Your task to perform on an android device: turn off priority inbox in the gmail app Image 0: 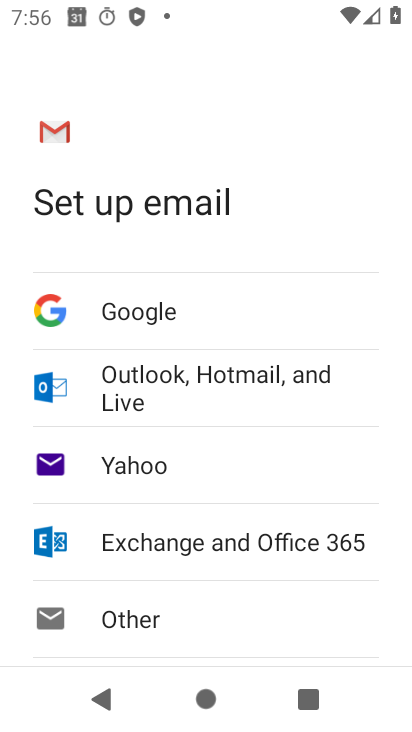
Step 0: press home button
Your task to perform on an android device: turn off priority inbox in the gmail app Image 1: 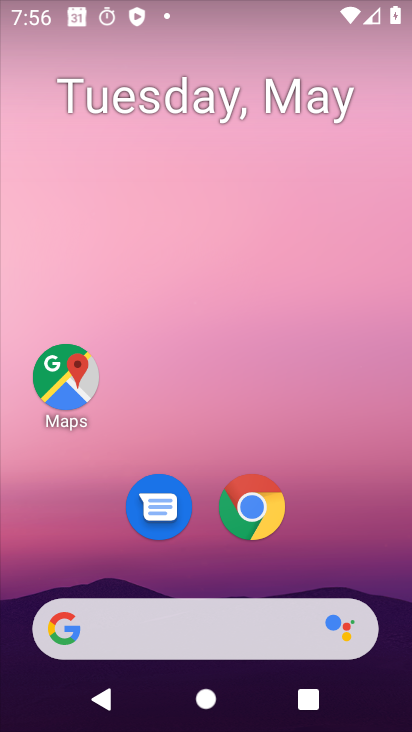
Step 1: drag from (217, 558) to (192, 8)
Your task to perform on an android device: turn off priority inbox in the gmail app Image 2: 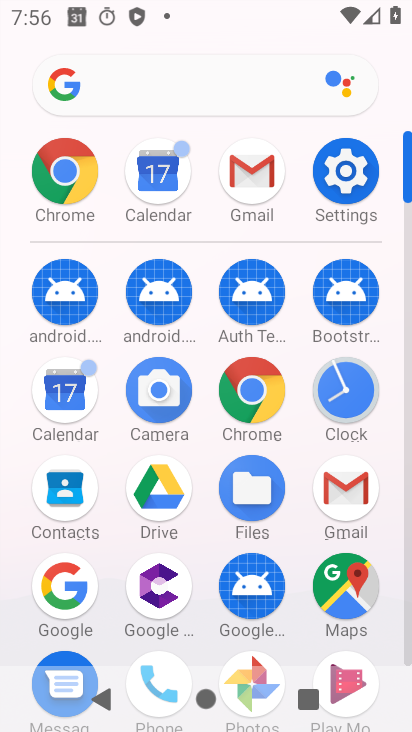
Step 2: click (237, 173)
Your task to perform on an android device: turn off priority inbox in the gmail app Image 3: 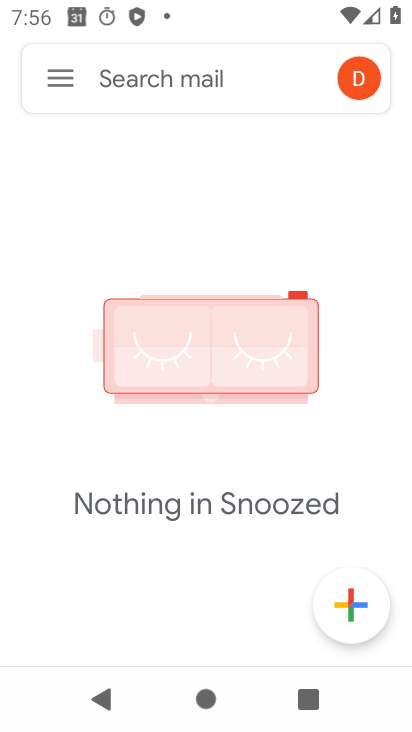
Step 3: click (48, 85)
Your task to perform on an android device: turn off priority inbox in the gmail app Image 4: 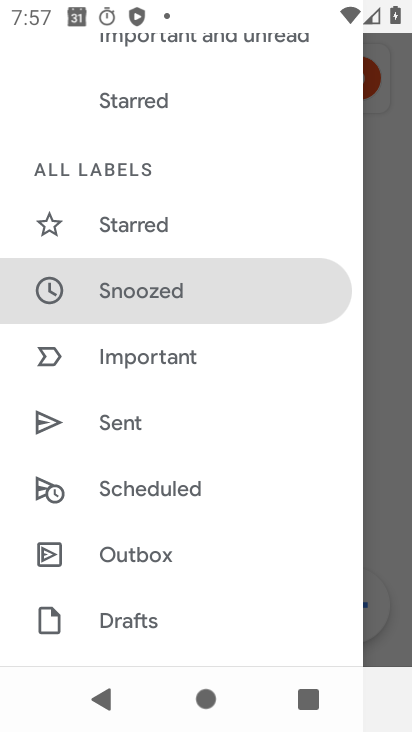
Step 4: drag from (174, 568) to (220, 311)
Your task to perform on an android device: turn off priority inbox in the gmail app Image 5: 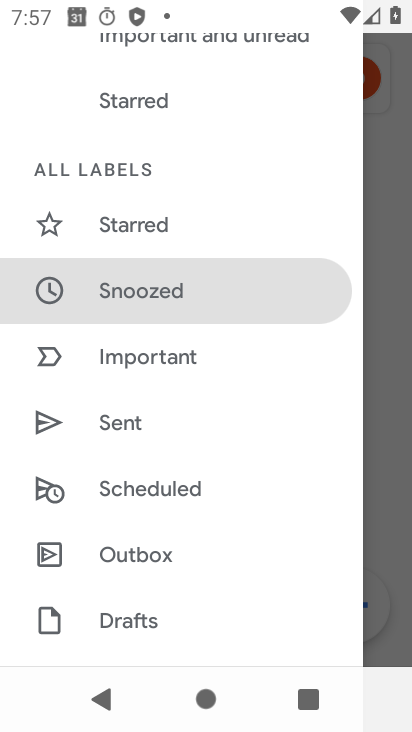
Step 5: drag from (156, 566) to (195, 390)
Your task to perform on an android device: turn off priority inbox in the gmail app Image 6: 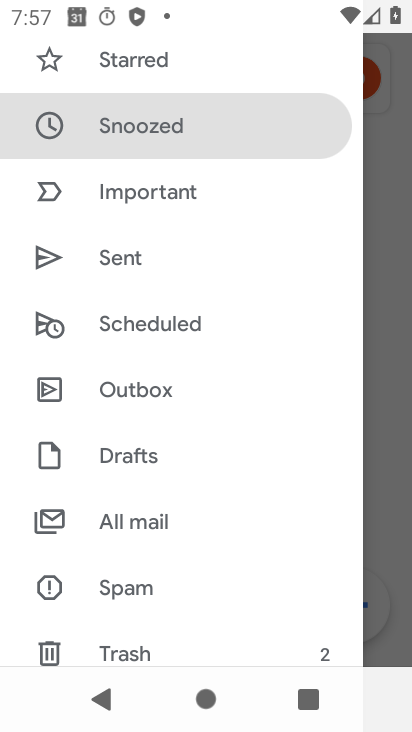
Step 6: drag from (168, 607) to (182, 343)
Your task to perform on an android device: turn off priority inbox in the gmail app Image 7: 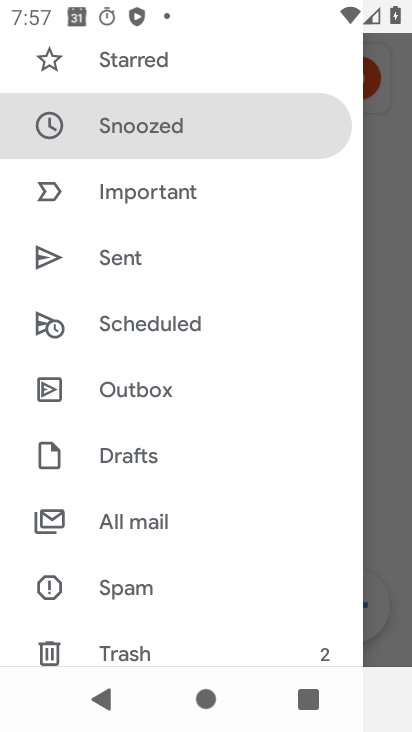
Step 7: drag from (175, 623) to (213, 260)
Your task to perform on an android device: turn off priority inbox in the gmail app Image 8: 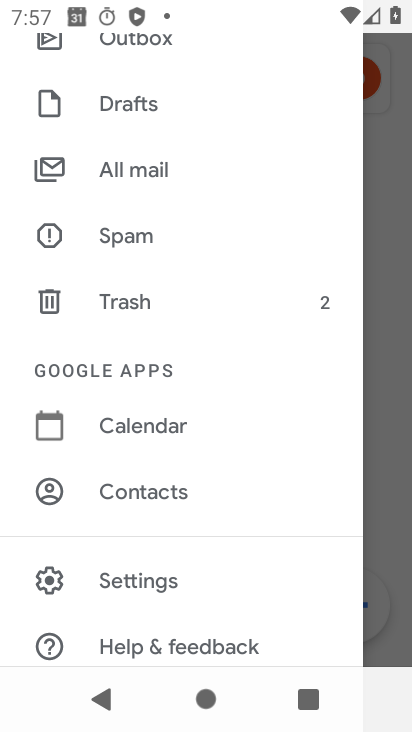
Step 8: click (148, 583)
Your task to perform on an android device: turn off priority inbox in the gmail app Image 9: 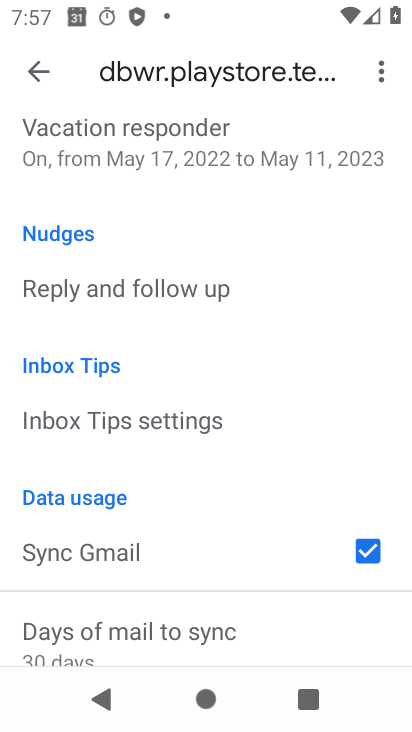
Step 9: drag from (134, 281) to (253, 591)
Your task to perform on an android device: turn off priority inbox in the gmail app Image 10: 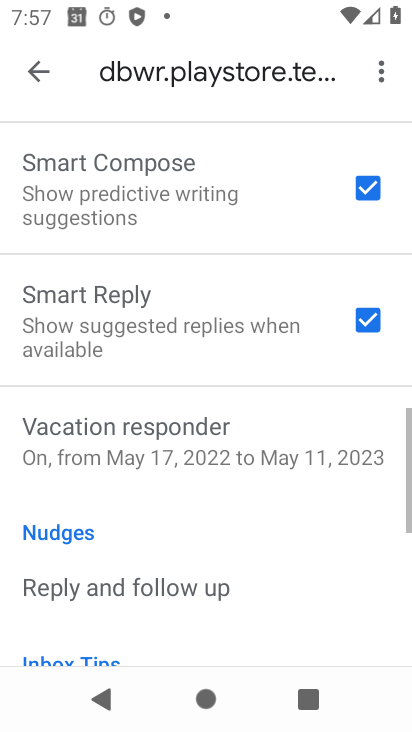
Step 10: drag from (164, 241) to (216, 565)
Your task to perform on an android device: turn off priority inbox in the gmail app Image 11: 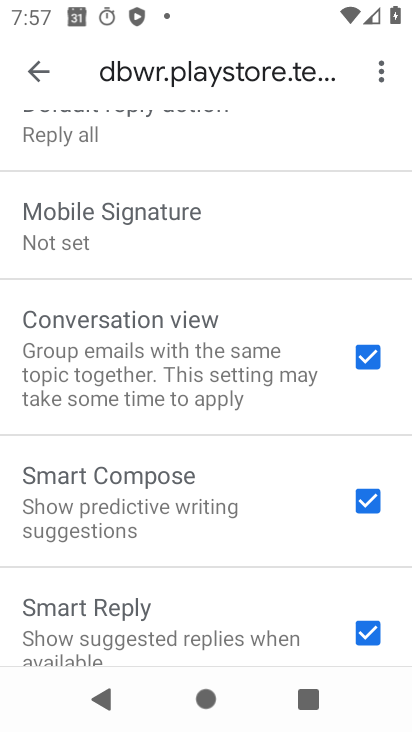
Step 11: drag from (193, 277) to (197, 466)
Your task to perform on an android device: turn off priority inbox in the gmail app Image 12: 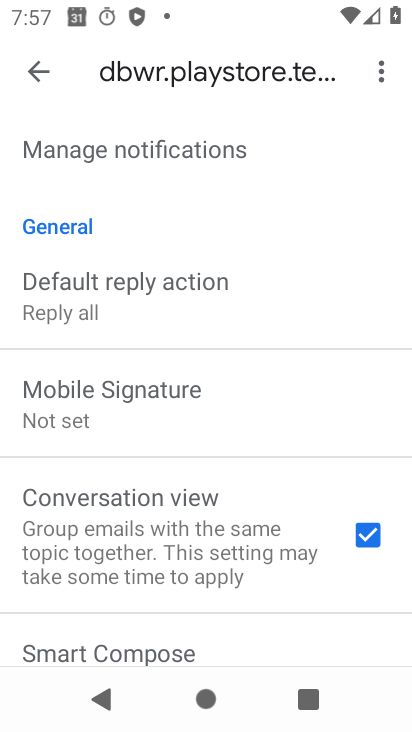
Step 12: drag from (177, 277) to (176, 554)
Your task to perform on an android device: turn off priority inbox in the gmail app Image 13: 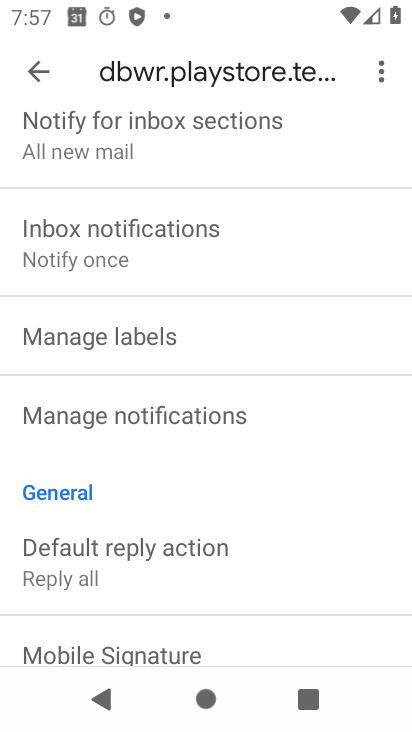
Step 13: drag from (153, 322) to (132, 545)
Your task to perform on an android device: turn off priority inbox in the gmail app Image 14: 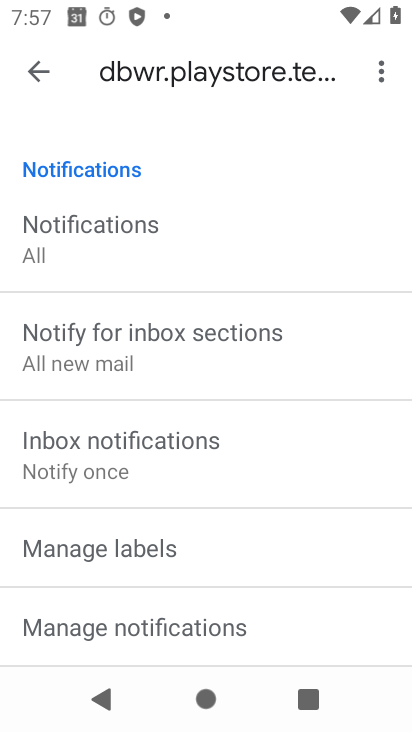
Step 14: drag from (163, 227) to (191, 492)
Your task to perform on an android device: turn off priority inbox in the gmail app Image 15: 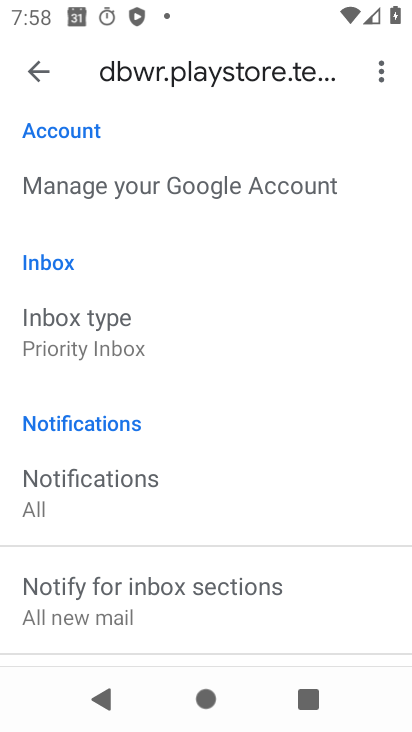
Step 15: click (135, 344)
Your task to perform on an android device: turn off priority inbox in the gmail app Image 16: 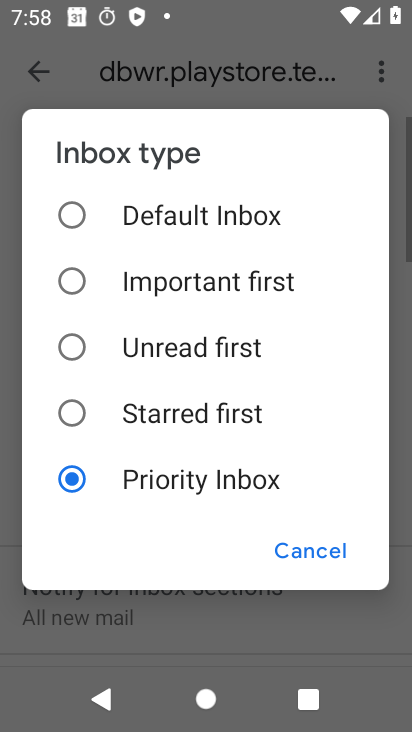
Step 16: click (185, 210)
Your task to perform on an android device: turn off priority inbox in the gmail app Image 17: 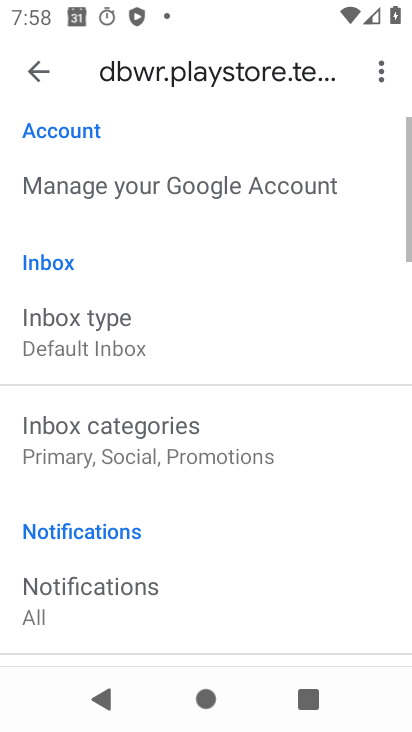
Step 17: task complete